Your task to perform on an android device: empty trash in google photos Image 0: 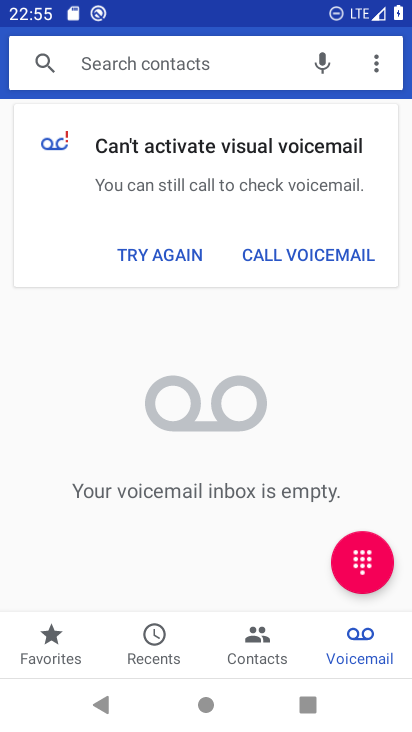
Step 0: press home button
Your task to perform on an android device: empty trash in google photos Image 1: 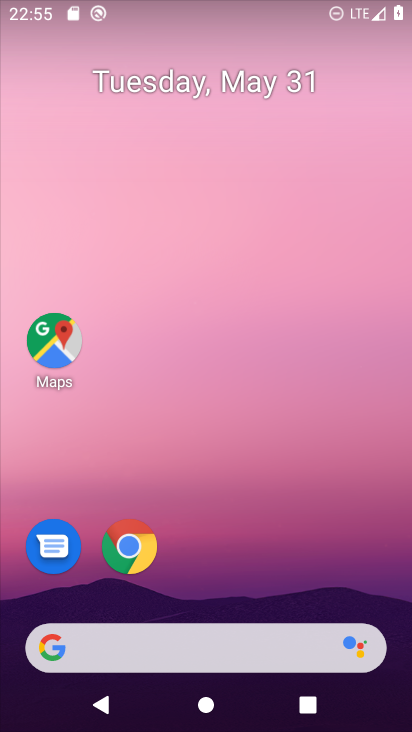
Step 1: drag from (396, 638) to (334, 159)
Your task to perform on an android device: empty trash in google photos Image 2: 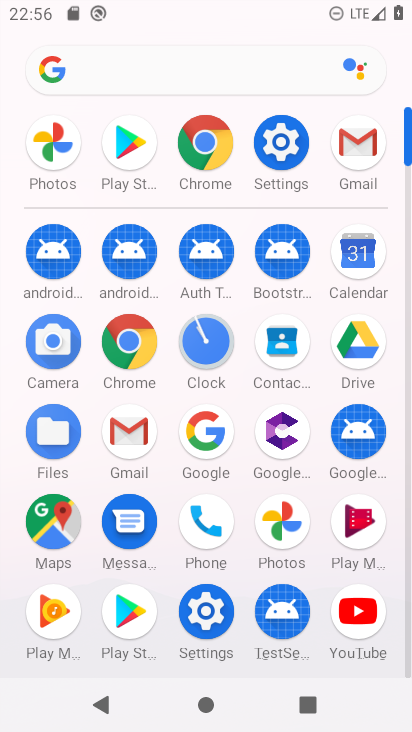
Step 2: click (286, 514)
Your task to perform on an android device: empty trash in google photos Image 3: 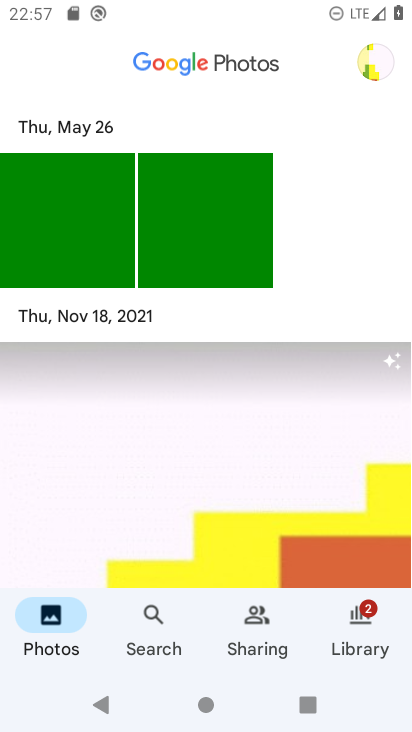
Step 3: task complete